Your task to perform on an android device: turn on showing notifications on the lock screen Image 0: 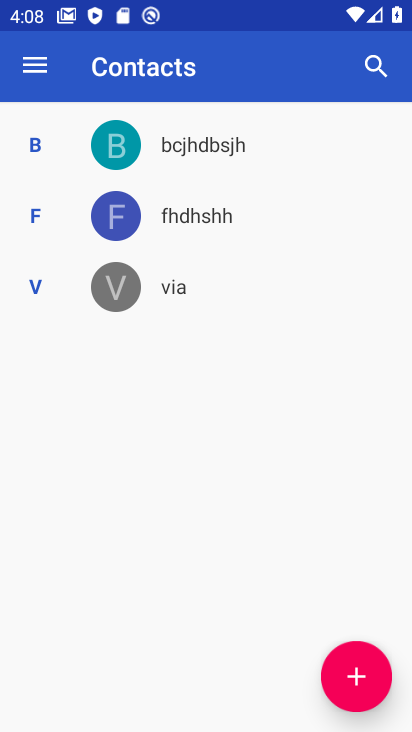
Step 0: press home button
Your task to perform on an android device: turn on showing notifications on the lock screen Image 1: 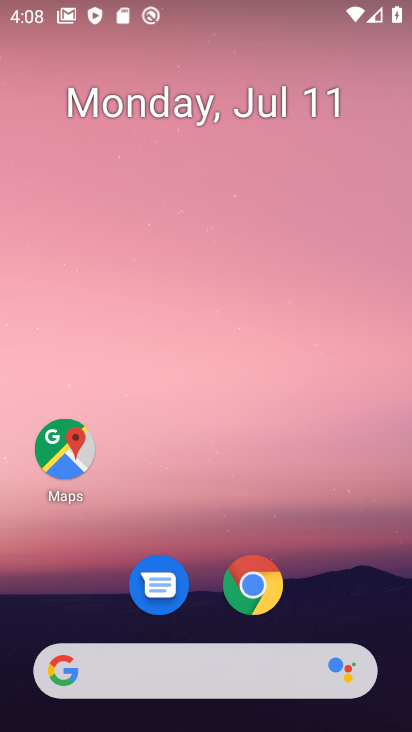
Step 1: drag from (313, 549) to (240, 50)
Your task to perform on an android device: turn on showing notifications on the lock screen Image 2: 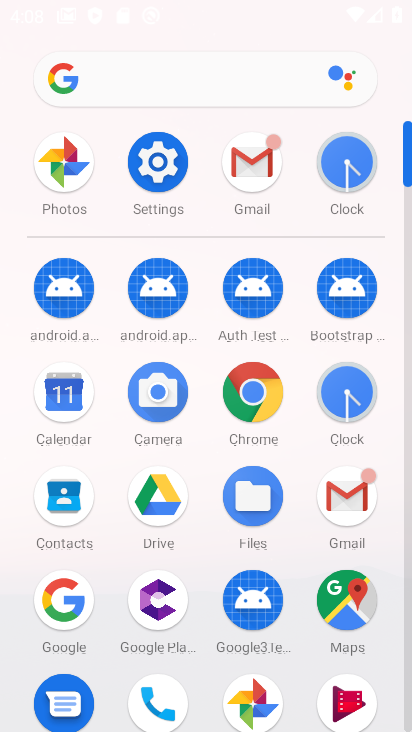
Step 2: click (155, 167)
Your task to perform on an android device: turn on showing notifications on the lock screen Image 3: 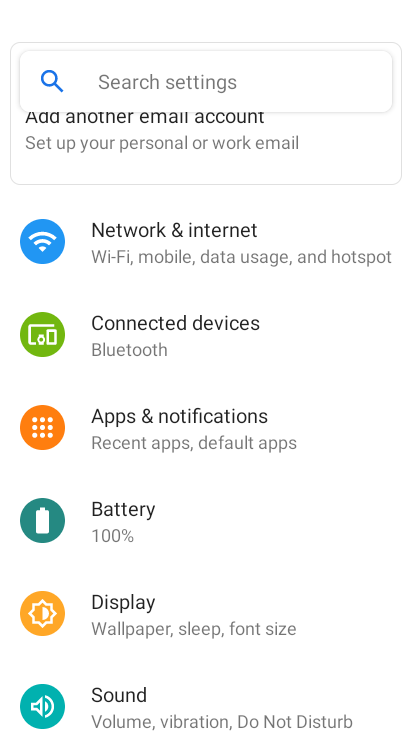
Step 3: click (231, 414)
Your task to perform on an android device: turn on showing notifications on the lock screen Image 4: 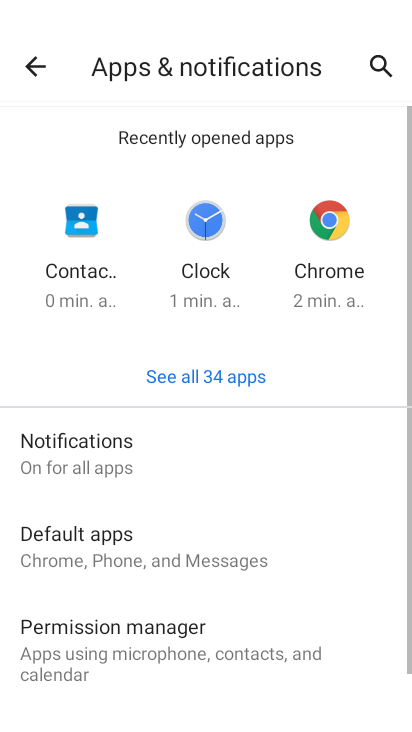
Step 4: click (109, 444)
Your task to perform on an android device: turn on showing notifications on the lock screen Image 5: 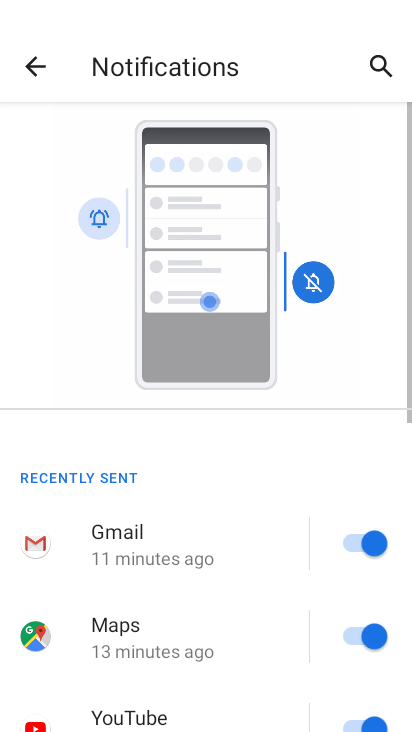
Step 5: drag from (208, 614) to (267, 145)
Your task to perform on an android device: turn on showing notifications on the lock screen Image 6: 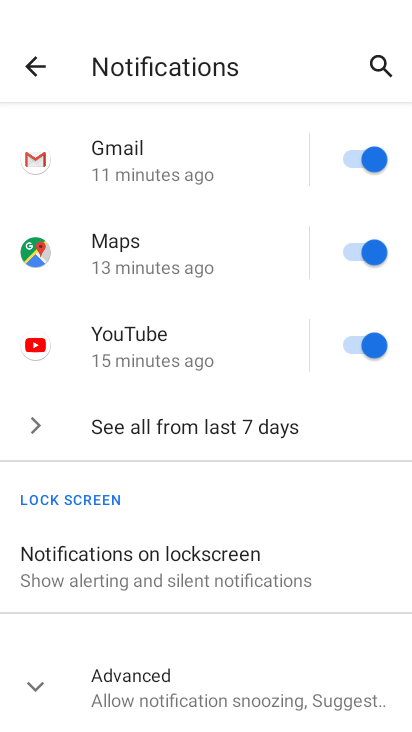
Step 6: drag from (204, 476) to (214, 245)
Your task to perform on an android device: turn on showing notifications on the lock screen Image 7: 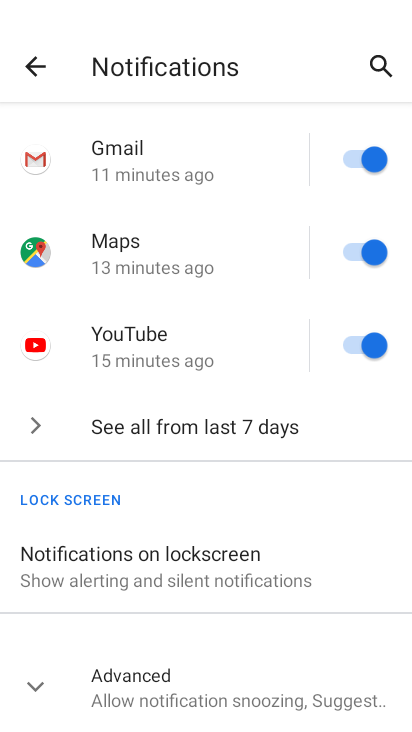
Step 7: click (212, 575)
Your task to perform on an android device: turn on showing notifications on the lock screen Image 8: 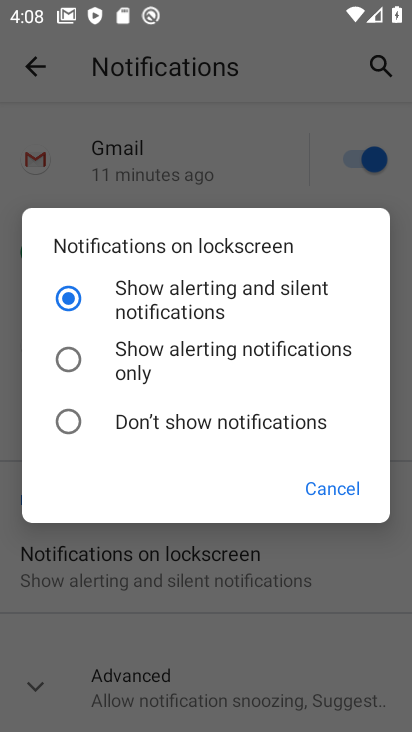
Step 8: click (350, 489)
Your task to perform on an android device: turn on showing notifications on the lock screen Image 9: 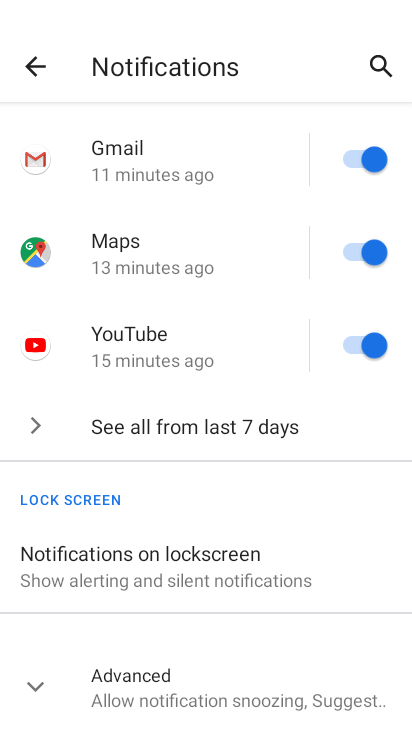
Step 9: task complete